Your task to perform on an android device: turn off wifi Image 0: 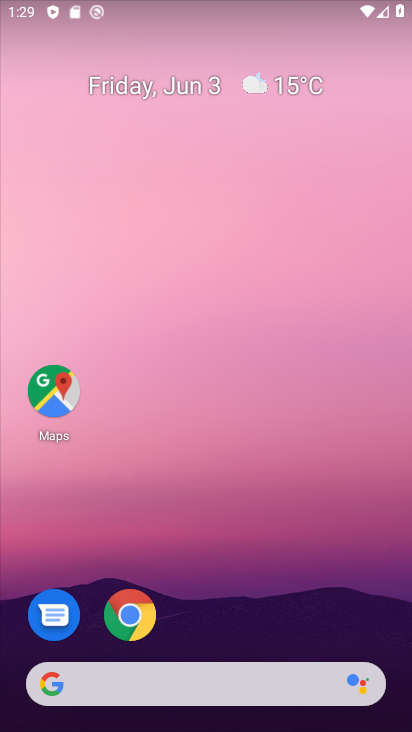
Step 0: click (341, 119)
Your task to perform on an android device: turn off wifi Image 1: 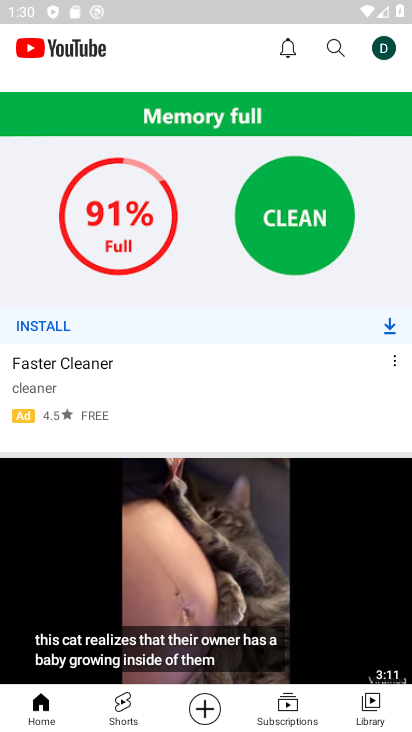
Step 1: drag from (206, 562) to (271, 63)
Your task to perform on an android device: turn off wifi Image 2: 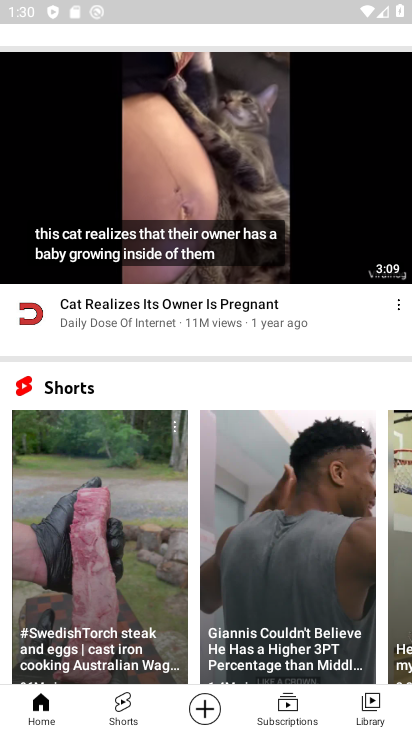
Step 2: drag from (218, 178) to (218, 730)
Your task to perform on an android device: turn off wifi Image 3: 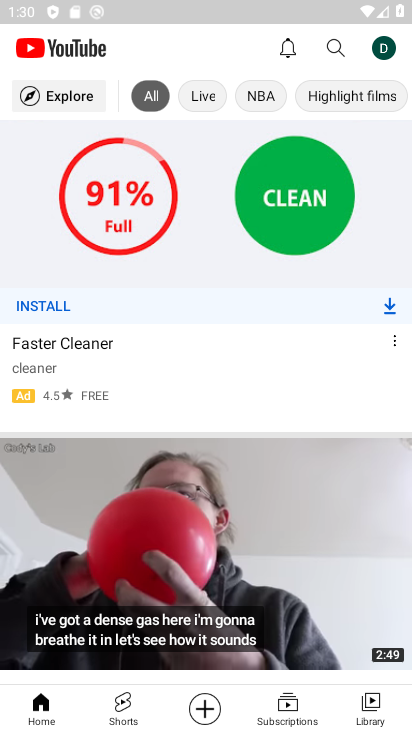
Step 3: drag from (230, 540) to (355, 44)
Your task to perform on an android device: turn off wifi Image 4: 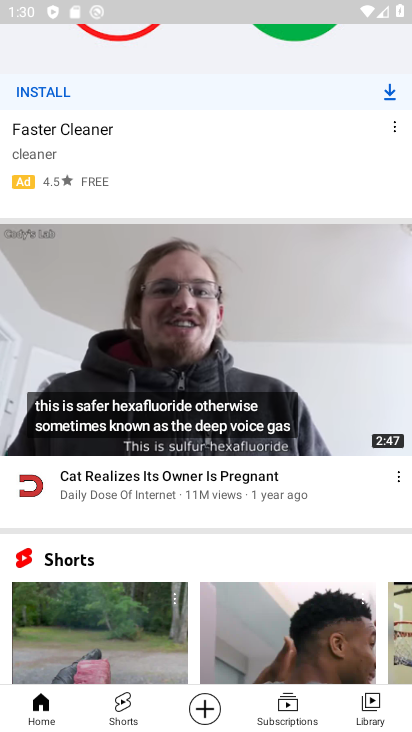
Step 4: press home button
Your task to perform on an android device: turn off wifi Image 5: 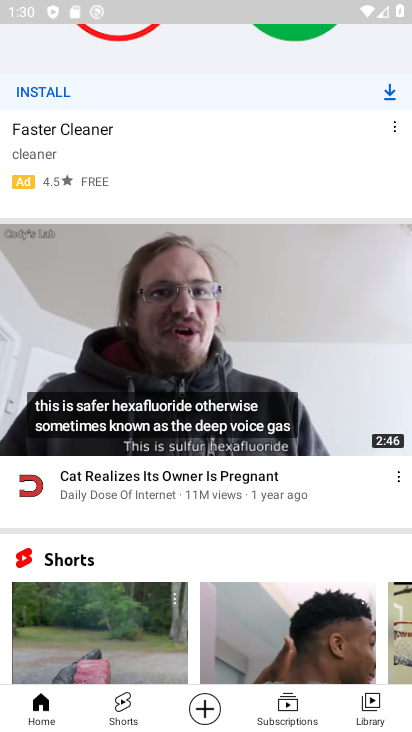
Step 5: drag from (291, 26) to (267, 2)
Your task to perform on an android device: turn off wifi Image 6: 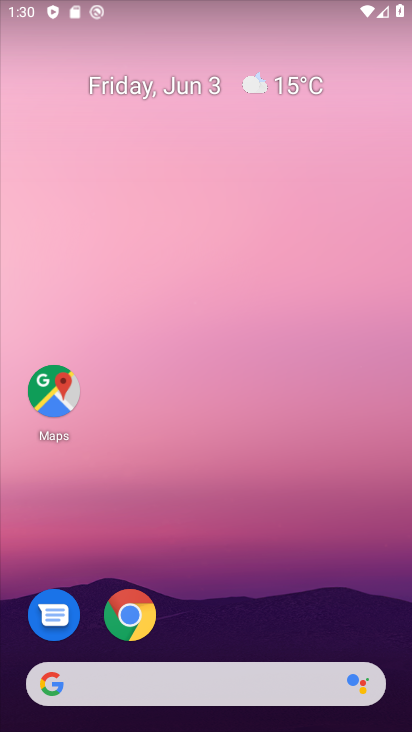
Step 6: drag from (275, 312) to (236, 24)
Your task to perform on an android device: turn off wifi Image 7: 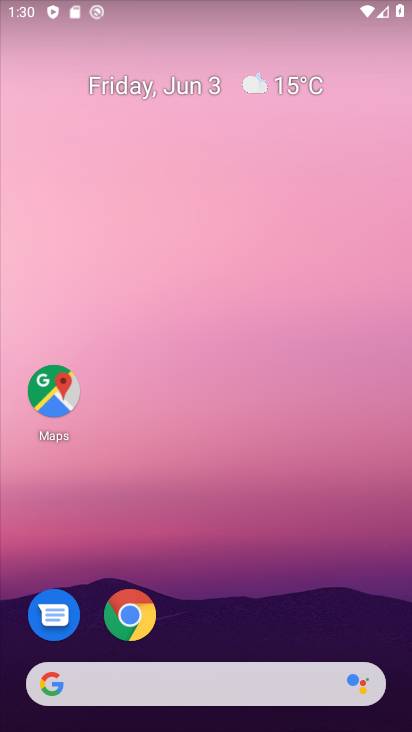
Step 7: drag from (214, 623) to (384, 319)
Your task to perform on an android device: turn off wifi Image 8: 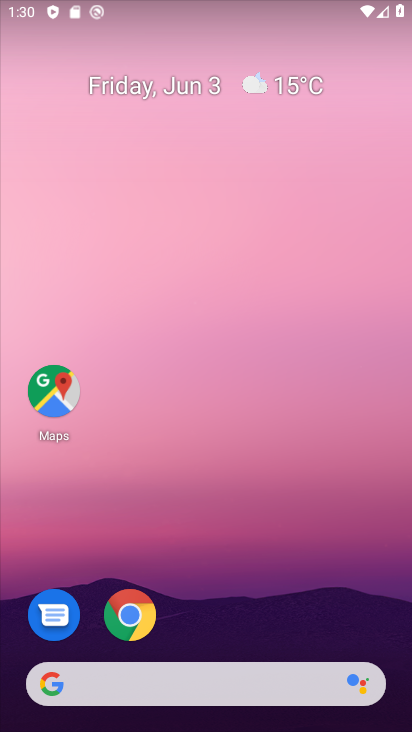
Step 8: drag from (192, 643) to (402, 46)
Your task to perform on an android device: turn off wifi Image 9: 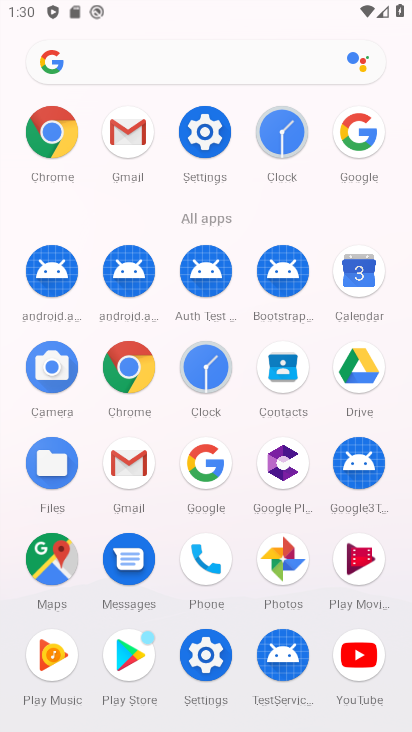
Step 9: click (205, 123)
Your task to perform on an android device: turn off wifi Image 10: 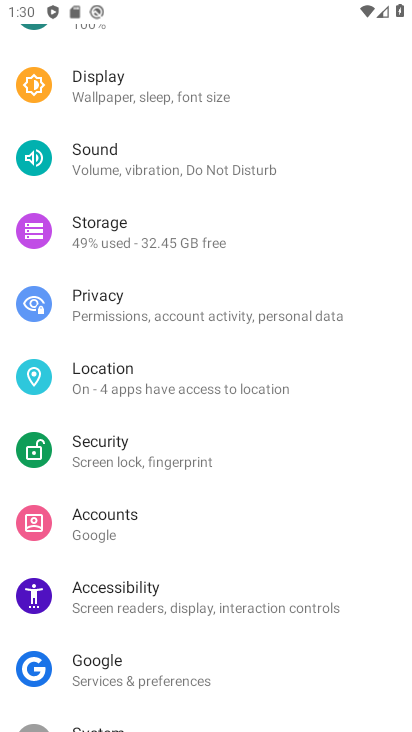
Step 10: drag from (196, 212) to (232, 727)
Your task to perform on an android device: turn off wifi Image 11: 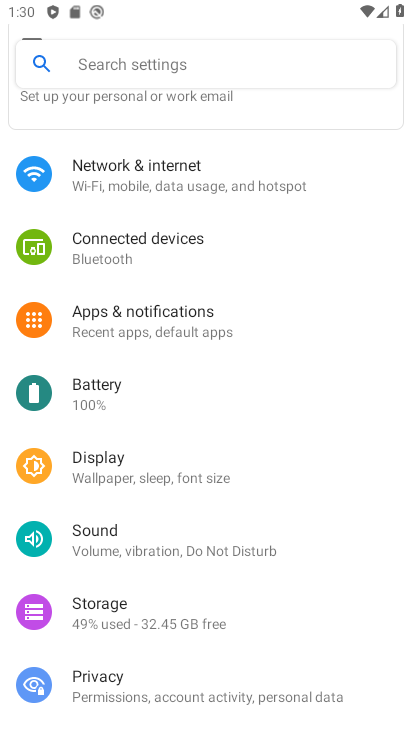
Step 11: click (158, 190)
Your task to perform on an android device: turn off wifi Image 12: 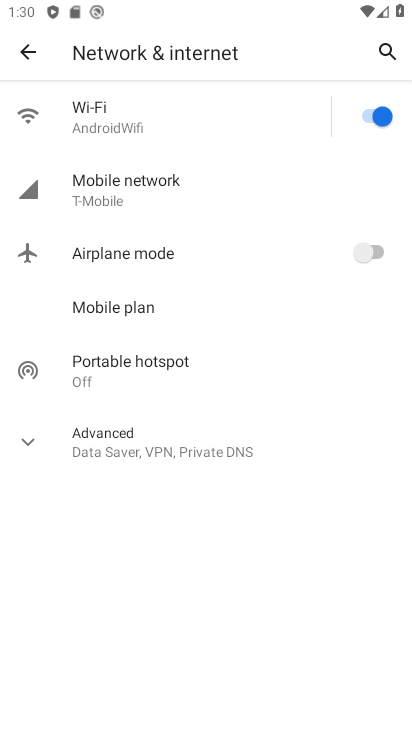
Step 12: click (206, 127)
Your task to perform on an android device: turn off wifi Image 13: 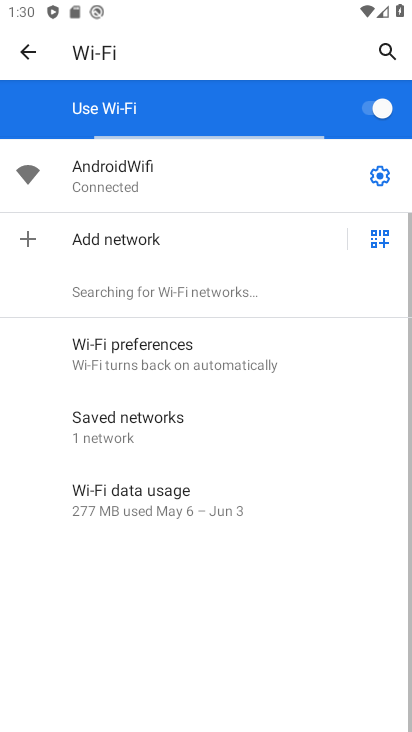
Step 13: click (380, 120)
Your task to perform on an android device: turn off wifi Image 14: 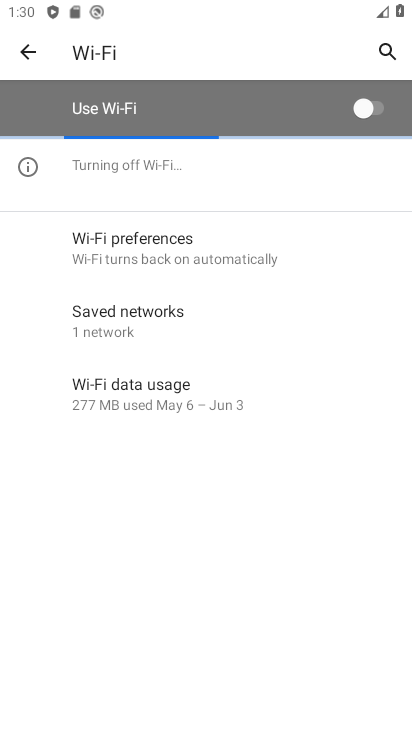
Step 14: task complete